Your task to perform on an android device: turn off priority inbox in the gmail app Image 0: 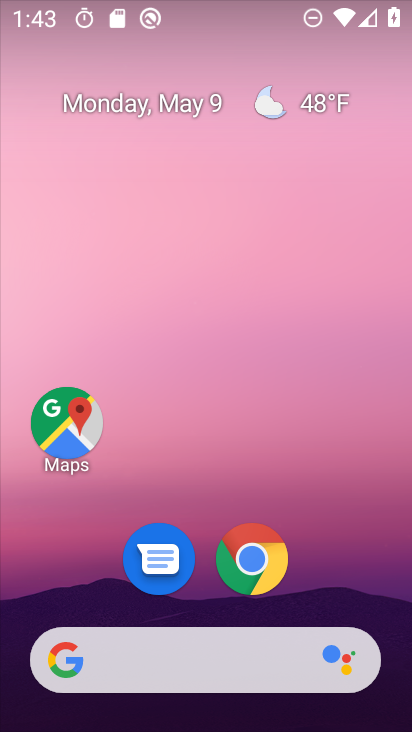
Step 0: drag from (138, 614) to (280, 91)
Your task to perform on an android device: turn off priority inbox in the gmail app Image 1: 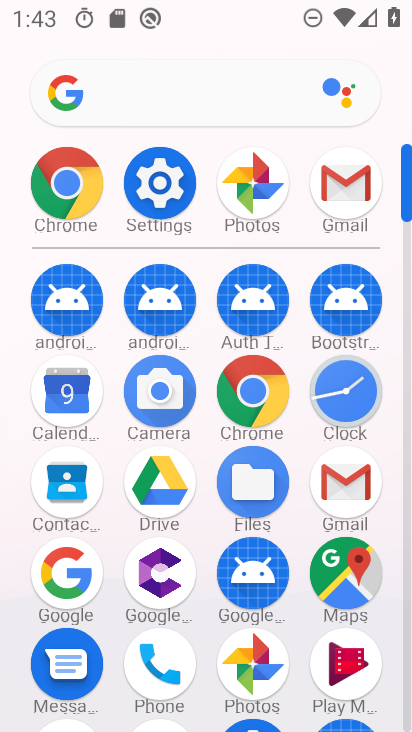
Step 1: click (339, 193)
Your task to perform on an android device: turn off priority inbox in the gmail app Image 2: 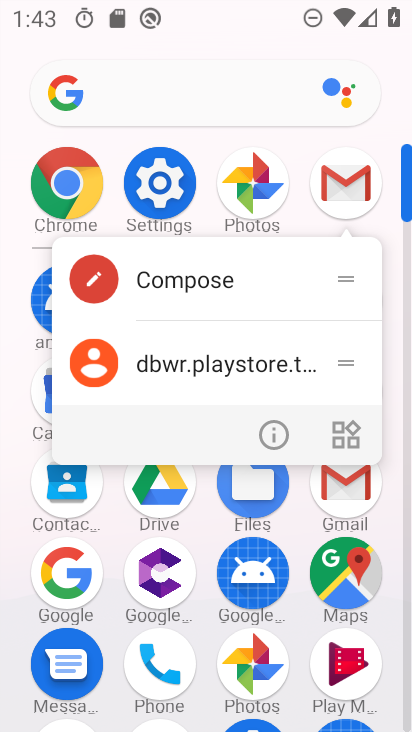
Step 2: click (268, 429)
Your task to perform on an android device: turn off priority inbox in the gmail app Image 3: 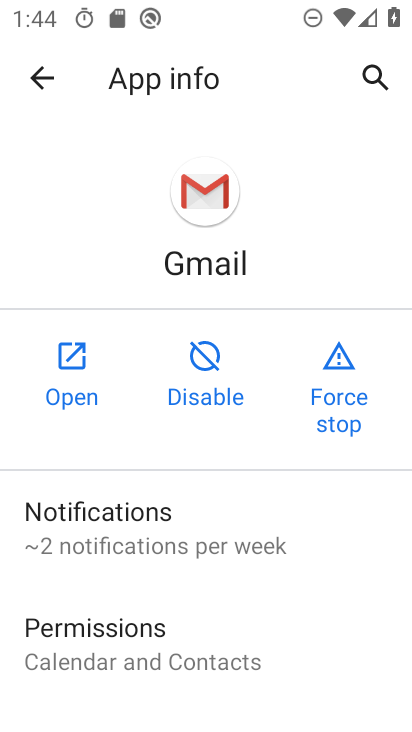
Step 3: click (69, 370)
Your task to perform on an android device: turn off priority inbox in the gmail app Image 4: 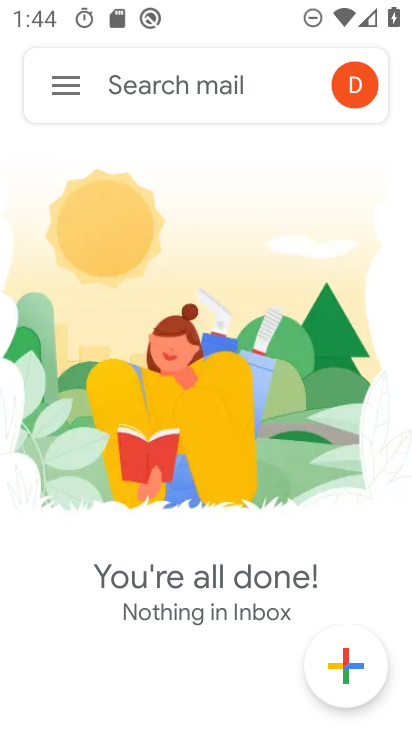
Step 4: click (55, 90)
Your task to perform on an android device: turn off priority inbox in the gmail app Image 5: 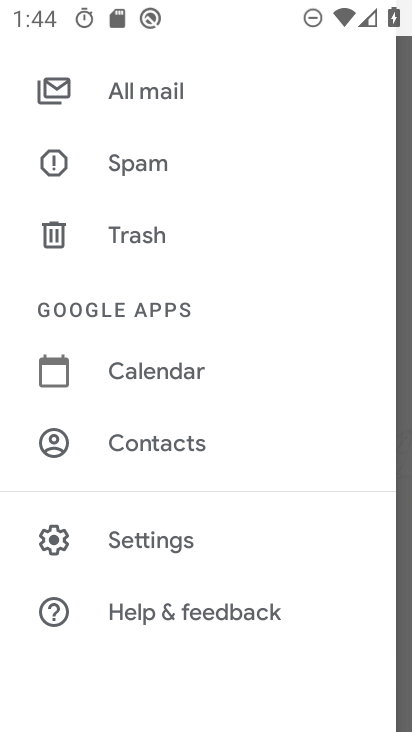
Step 5: click (161, 534)
Your task to perform on an android device: turn off priority inbox in the gmail app Image 6: 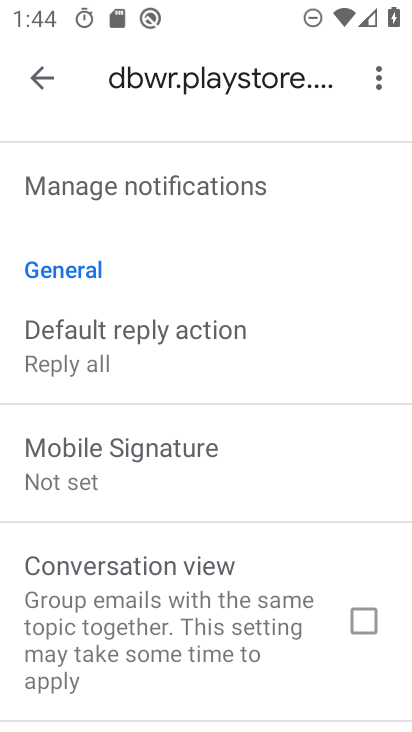
Step 6: drag from (226, 597) to (304, 161)
Your task to perform on an android device: turn off priority inbox in the gmail app Image 7: 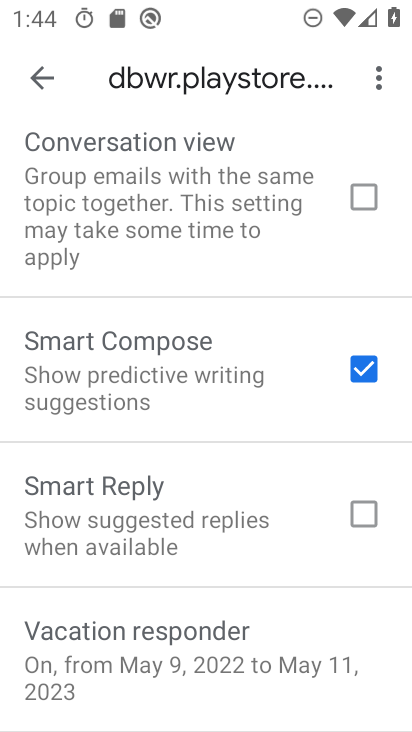
Step 7: drag from (186, 203) to (227, 701)
Your task to perform on an android device: turn off priority inbox in the gmail app Image 8: 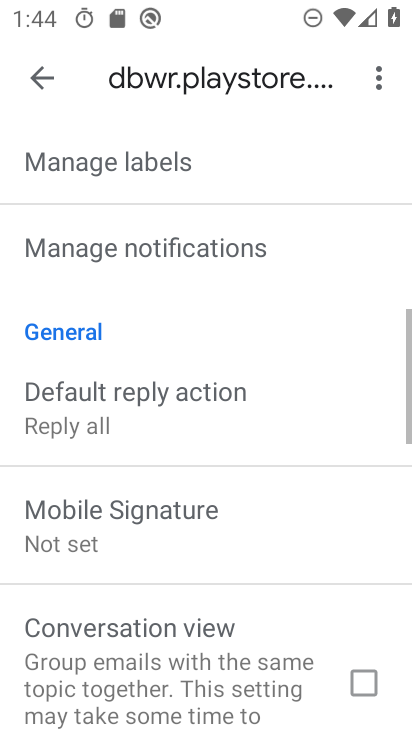
Step 8: drag from (168, 330) to (301, 725)
Your task to perform on an android device: turn off priority inbox in the gmail app Image 9: 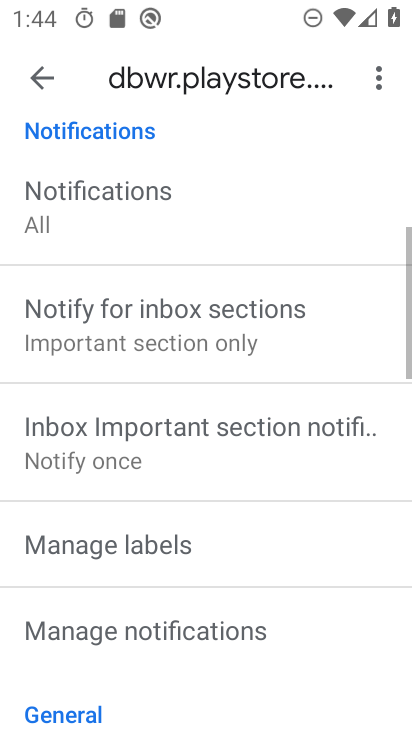
Step 9: drag from (181, 268) to (322, 716)
Your task to perform on an android device: turn off priority inbox in the gmail app Image 10: 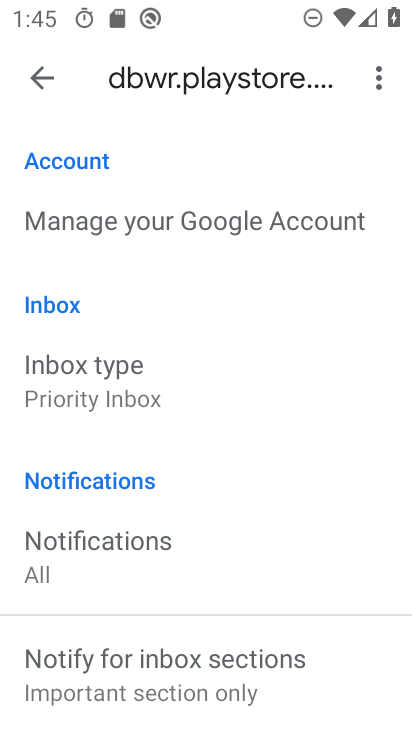
Step 10: click (133, 369)
Your task to perform on an android device: turn off priority inbox in the gmail app Image 11: 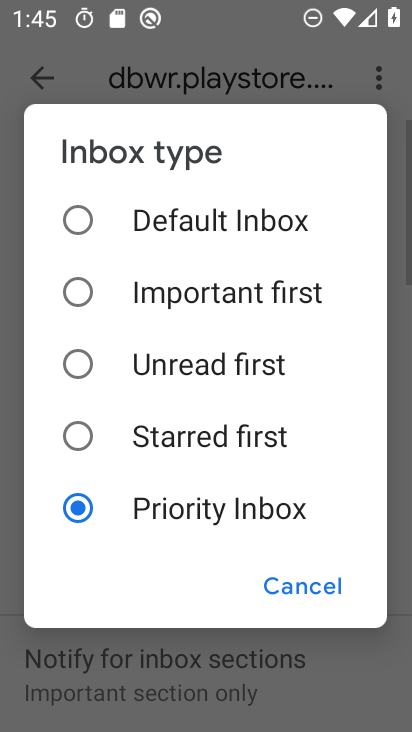
Step 11: click (182, 230)
Your task to perform on an android device: turn off priority inbox in the gmail app Image 12: 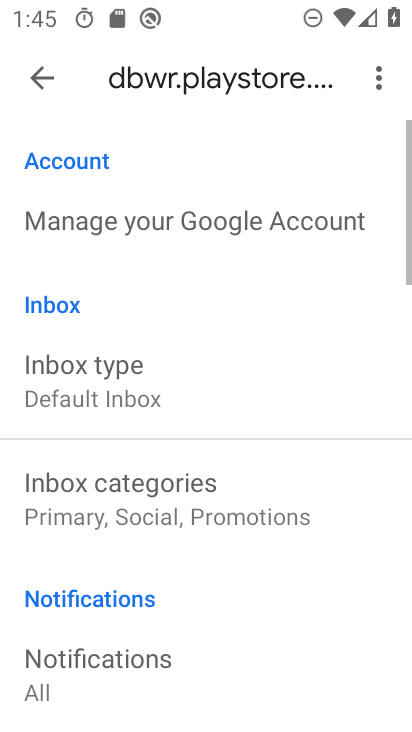
Step 12: task complete